Your task to perform on an android device: empty trash in the gmail app Image 0: 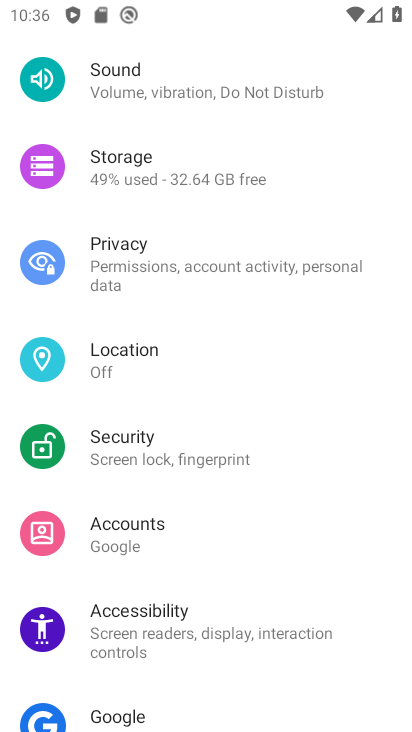
Step 0: press home button
Your task to perform on an android device: empty trash in the gmail app Image 1: 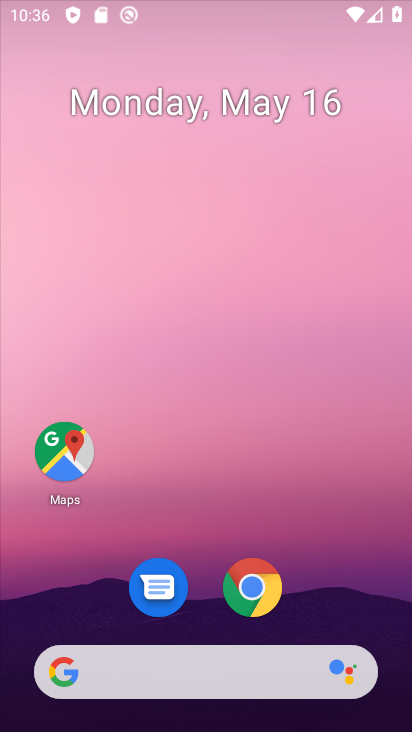
Step 1: click (379, 633)
Your task to perform on an android device: empty trash in the gmail app Image 2: 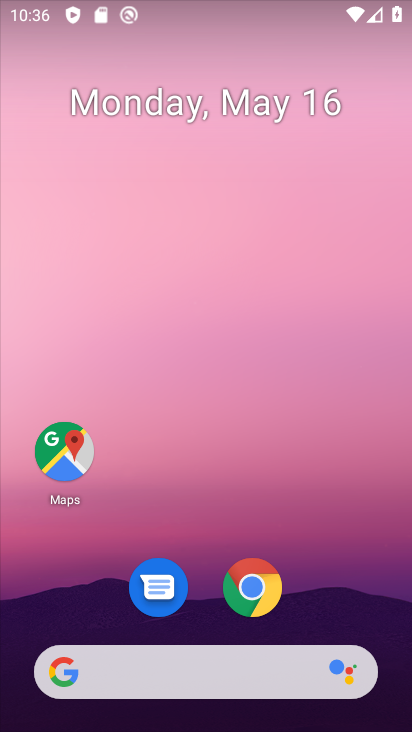
Step 2: drag from (317, 259) to (239, 13)
Your task to perform on an android device: empty trash in the gmail app Image 3: 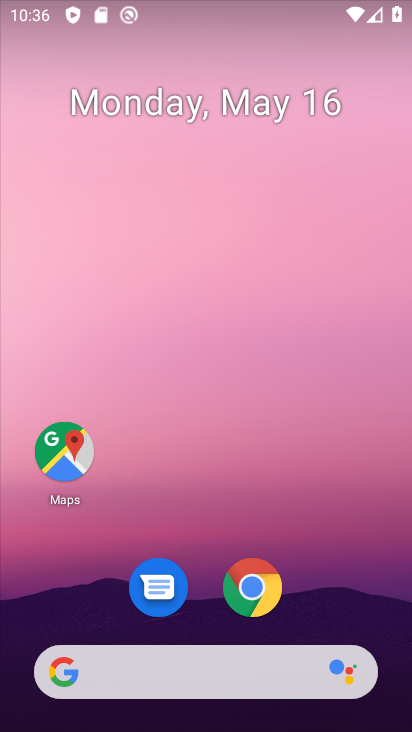
Step 3: drag from (372, 649) to (256, 37)
Your task to perform on an android device: empty trash in the gmail app Image 4: 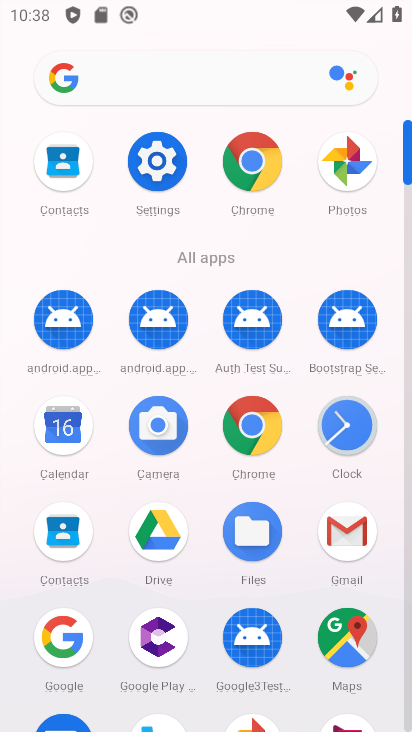
Step 4: click (352, 520)
Your task to perform on an android device: empty trash in the gmail app Image 5: 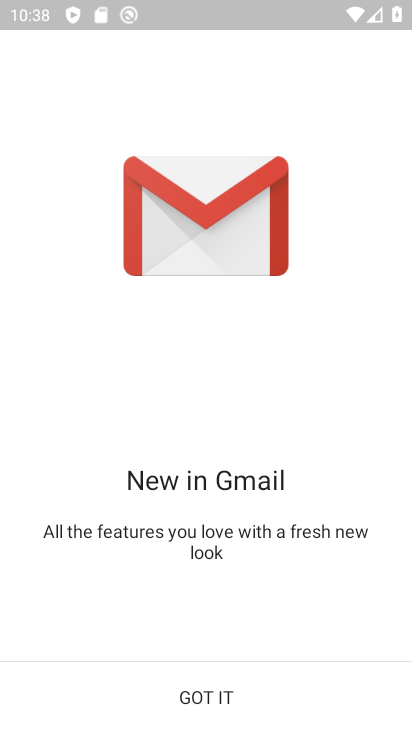
Step 5: click (167, 701)
Your task to perform on an android device: empty trash in the gmail app Image 6: 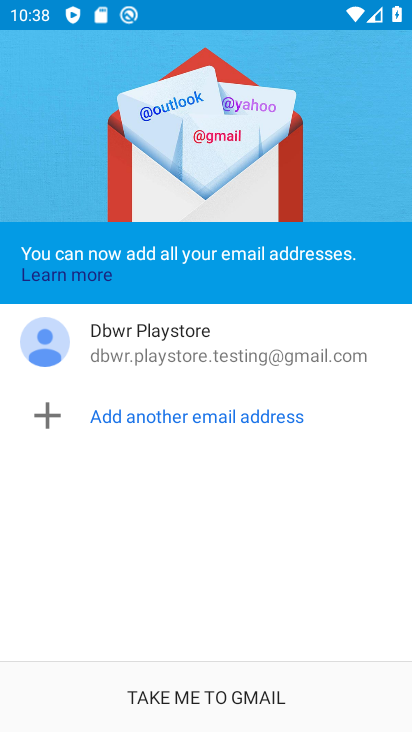
Step 6: click (167, 701)
Your task to perform on an android device: empty trash in the gmail app Image 7: 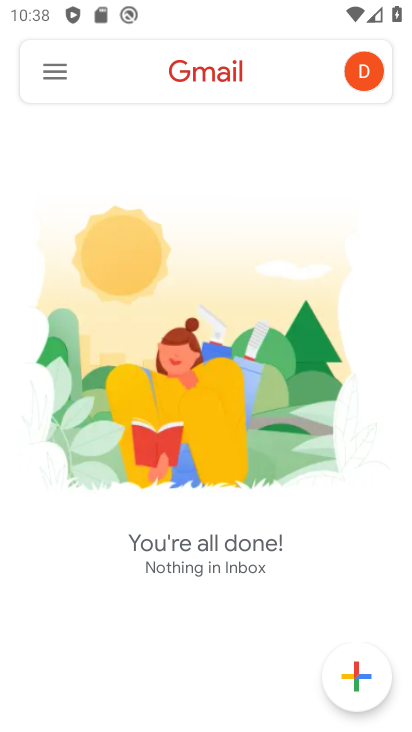
Step 7: click (58, 61)
Your task to perform on an android device: empty trash in the gmail app Image 8: 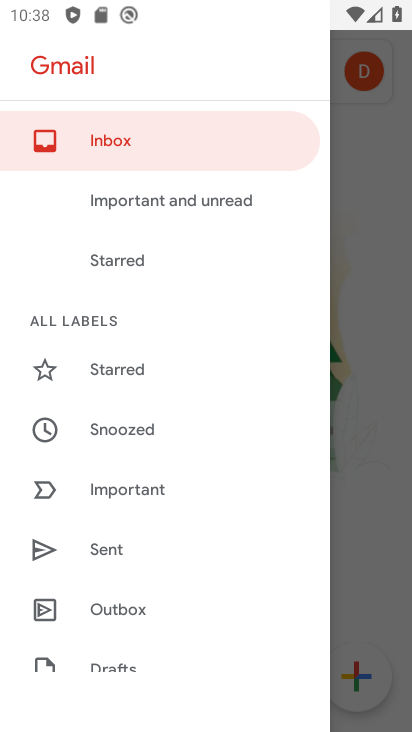
Step 8: drag from (111, 646) to (142, 296)
Your task to perform on an android device: empty trash in the gmail app Image 9: 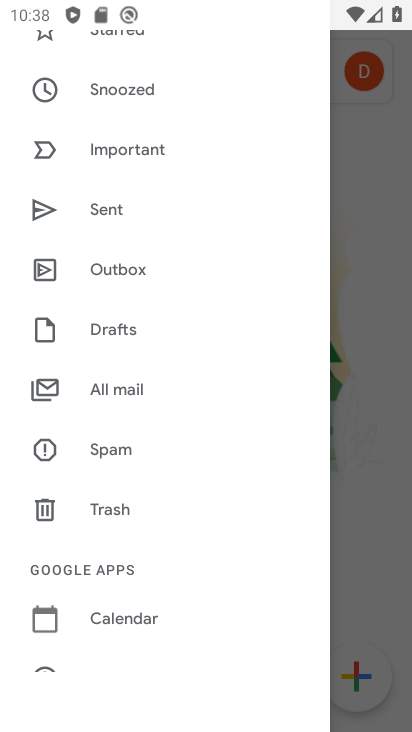
Step 9: click (104, 525)
Your task to perform on an android device: empty trash in the gmail app Image 10: 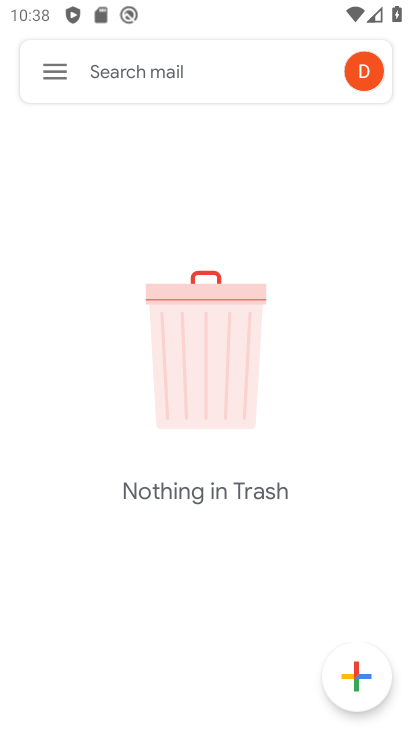
Step 10: task complete